Your task to perform on an android device: see creations saved in the google photos Image 0: 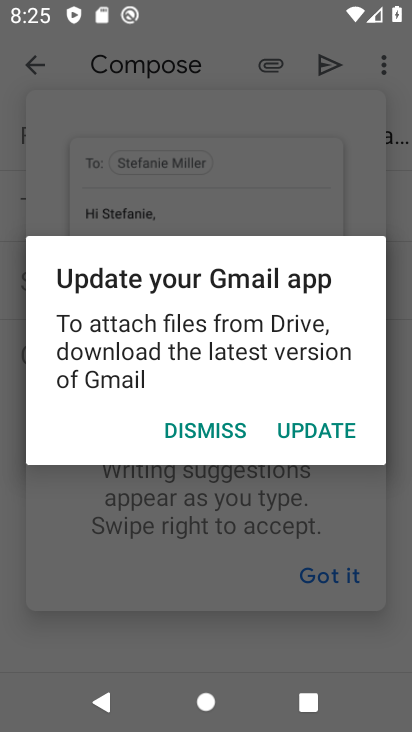
Step 0: press home button
Your task to perform on an android device: see creations saved in the google photos Image 1: 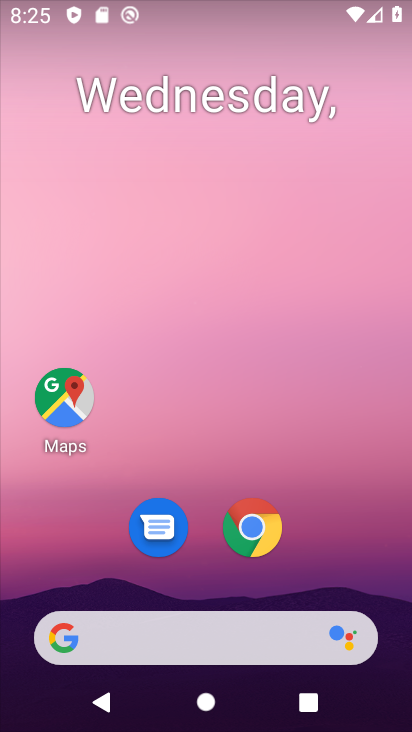
Step 1: drag from (313, 533) to (304, 59)
Your task to perform on an android device: see creations saved in the google photos Image 2: 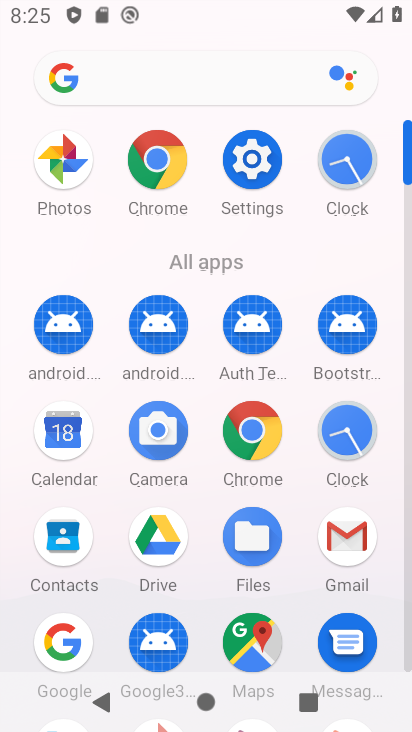
Step 2: drag from (261, 634) to (332, 306)
Your task to perform on an android device: see creations saved in the google photos Image 3: 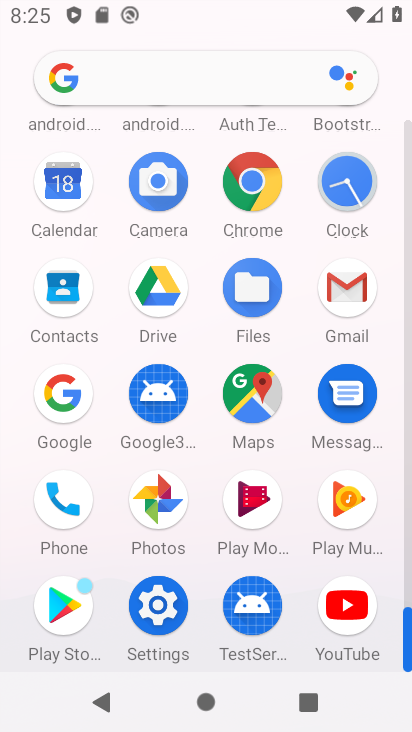
Step 3: click (156, 507)
Your task to perform on an android device: see creations saved in the google photos Image 4: 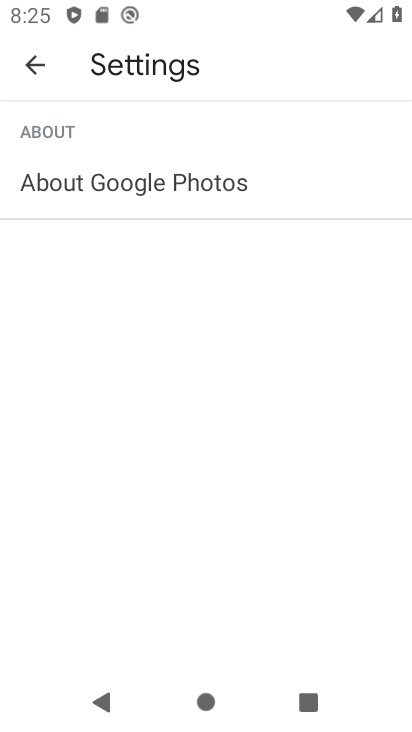
Step 4: click (43, 61)
Your task to perform on an android device: see creations saved in the google photos Image 5: 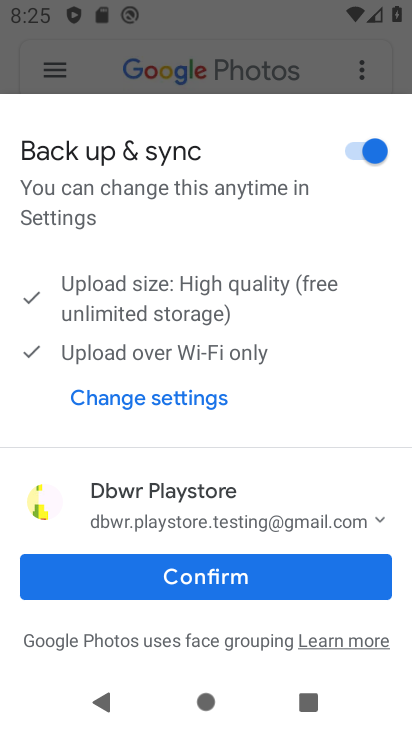
Step 5: click (206, 582)
Your task to perform on an android device: see creations saved in the google photos Image 6: 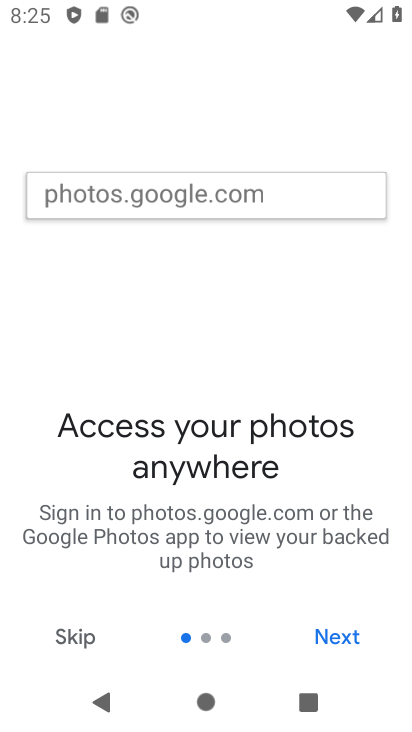
Step 6: click (360, 628)
Your task to perform on an android device: see creations saved in the google photos Image 7: 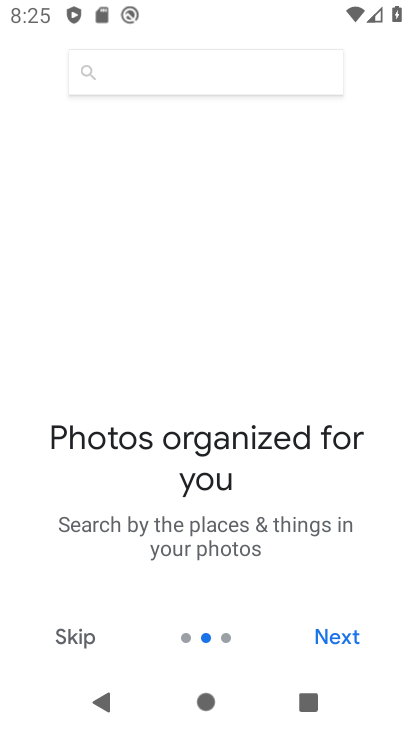
Step 7: click (359, 627)
Your task to perform on an android device: see creations saved in the google photos Image 8: 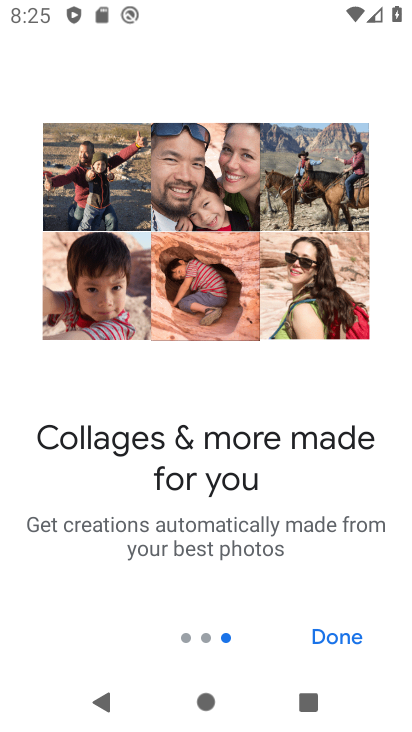
Step 8: click (359, 627)
Your task to perform on an android device: see creations saved in the google photos Image 9: 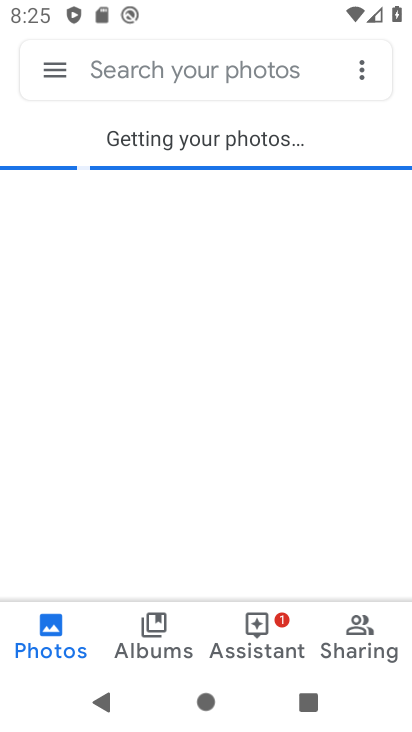
Step 9: click (359, 627)
Your task to perform on an android device: see creations saved in the google photos Image 10: 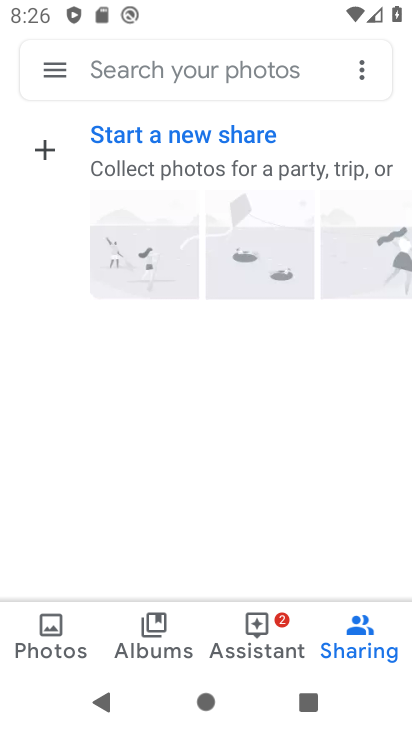
Step 10: click (254, 642)
Your task to perform on an android device: see creations saved in the google photos Image 11: 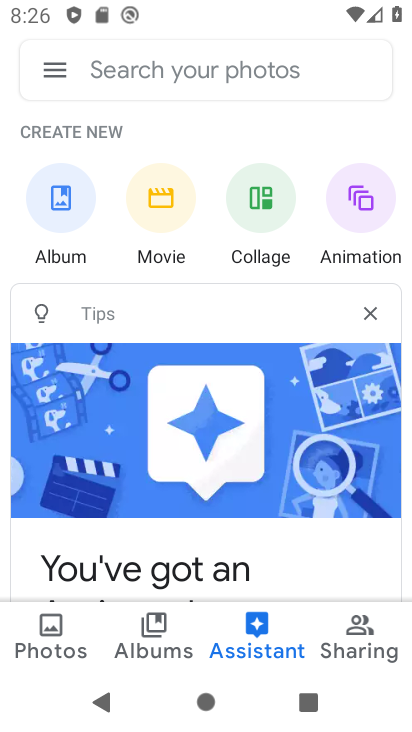
Step 11: task complete